Your task to perform on an android device: refresh tabs in the chrome app Image 0: 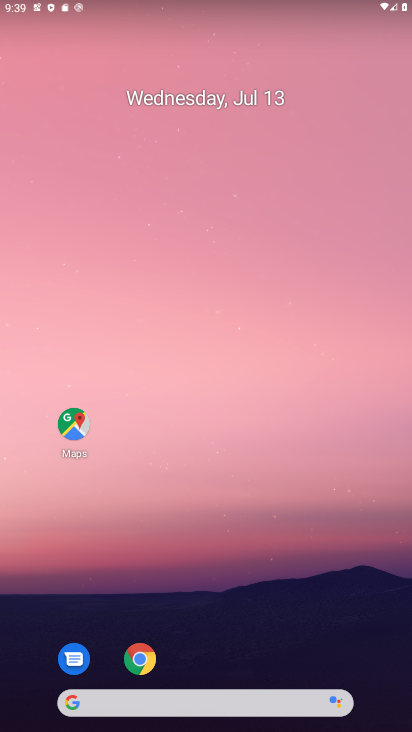
Step 0: click (149, 666)
Your task to perform on an android device: refresh tabs in the chrome app Image 1: 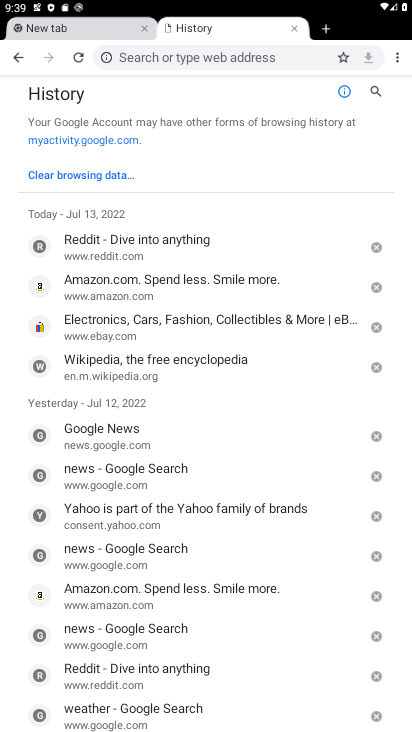
Step 1: click (76, 53)
Your task to perform on an android device: refresh tabs in the chrome app Image 2: 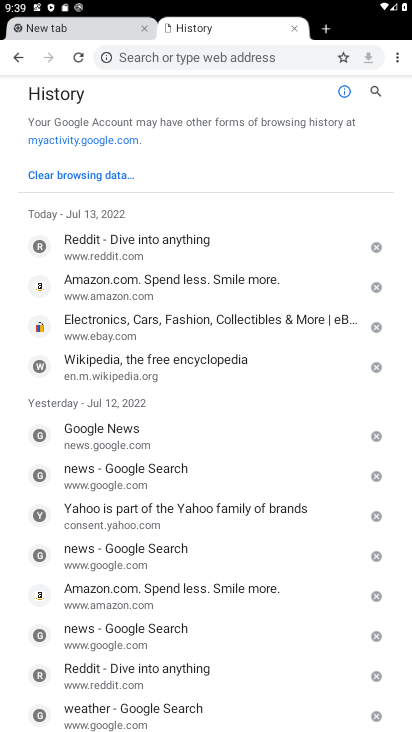
Step 2: task complete